Your task to perform on an android device: change the clock style Image 0: 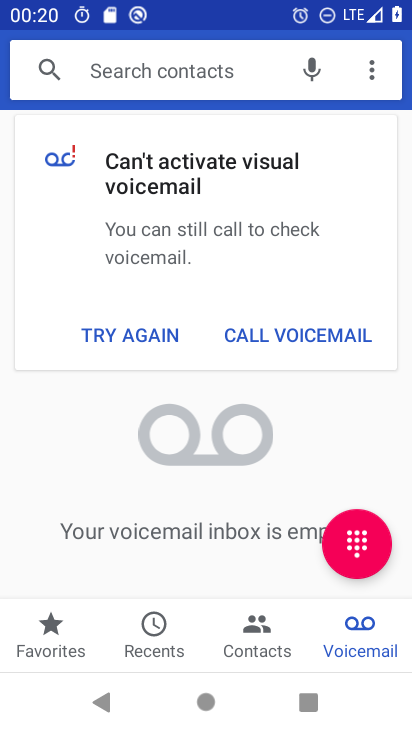
Step 0: press home button
Your task to perform on an android device: change the clock style Image 1: 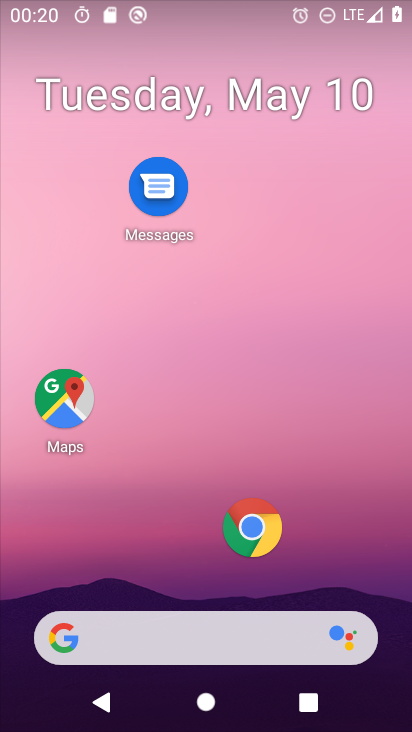
Step 1: drag from (174, 544) to (197, 46)
Your task to perform on an android device: change the clock style Image 2: 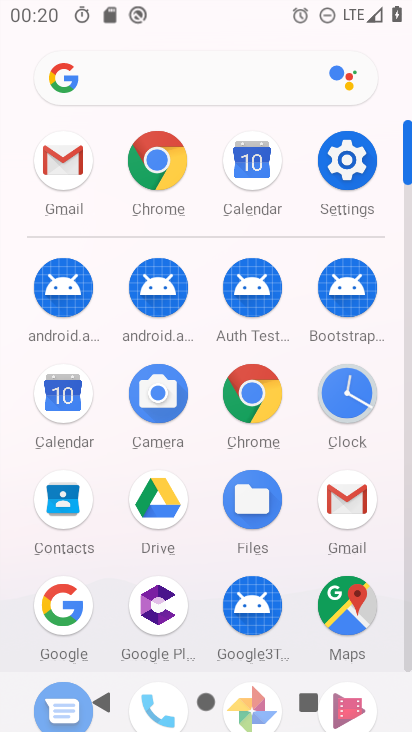
Step 2: click (351, 399)
Your task to perform on an android device: change the clock style Image 3: 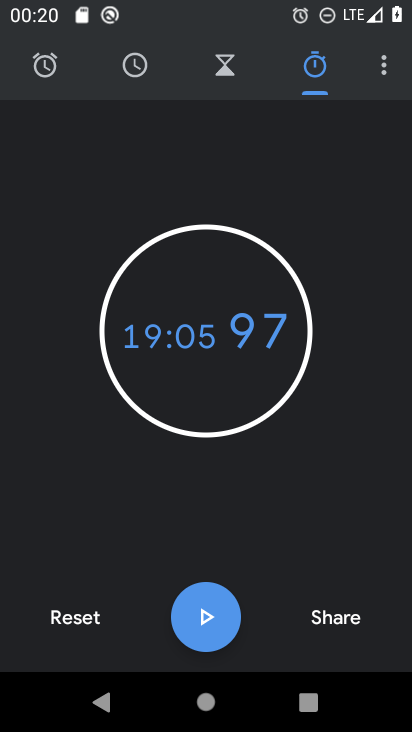
Step 3: click (373, 66)
Your task to perform on an android device: change the clock style Image 4: 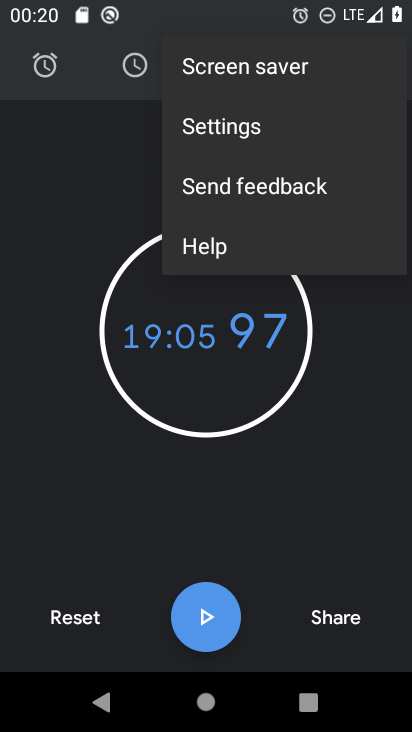
Step 4: click (238, 134)
Your task to perform on an android device: change the clock style Image 5: 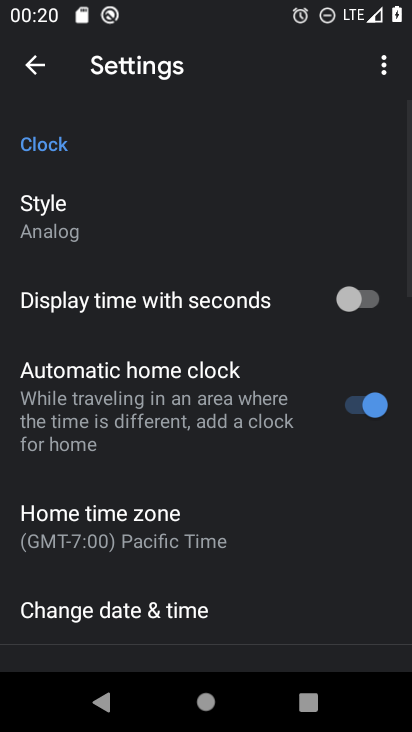
Step 5: click (89, 210)
Your task to perform on an android device: change the clock style Image 6: 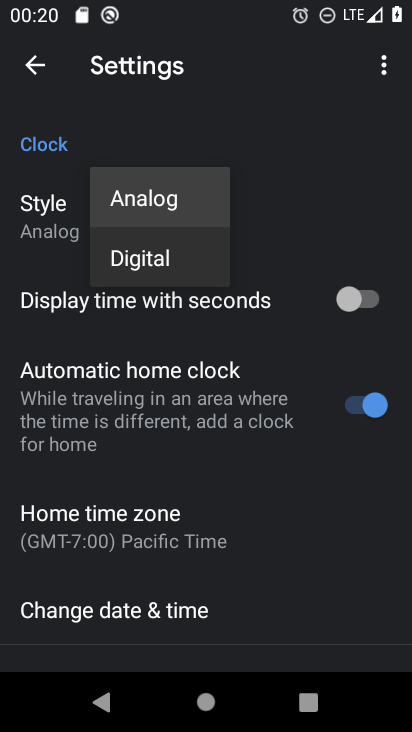
Step 6: click (160, 257)
Your task to perform on an android device: change the clock style Image 7: 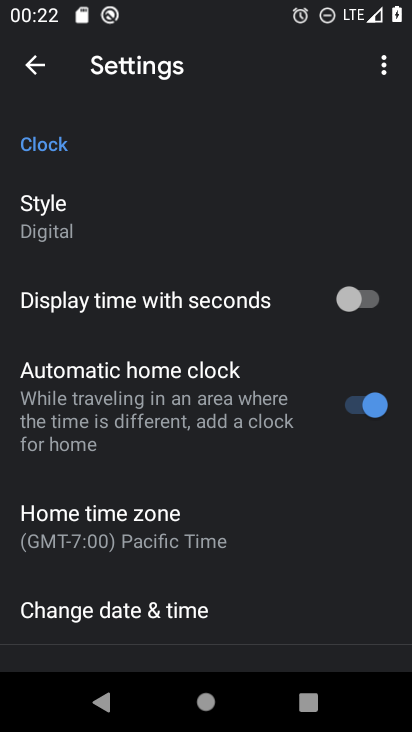
Step 7: task complete